Your task to perform on an android device: change notification settings in the gmail app Image 0: 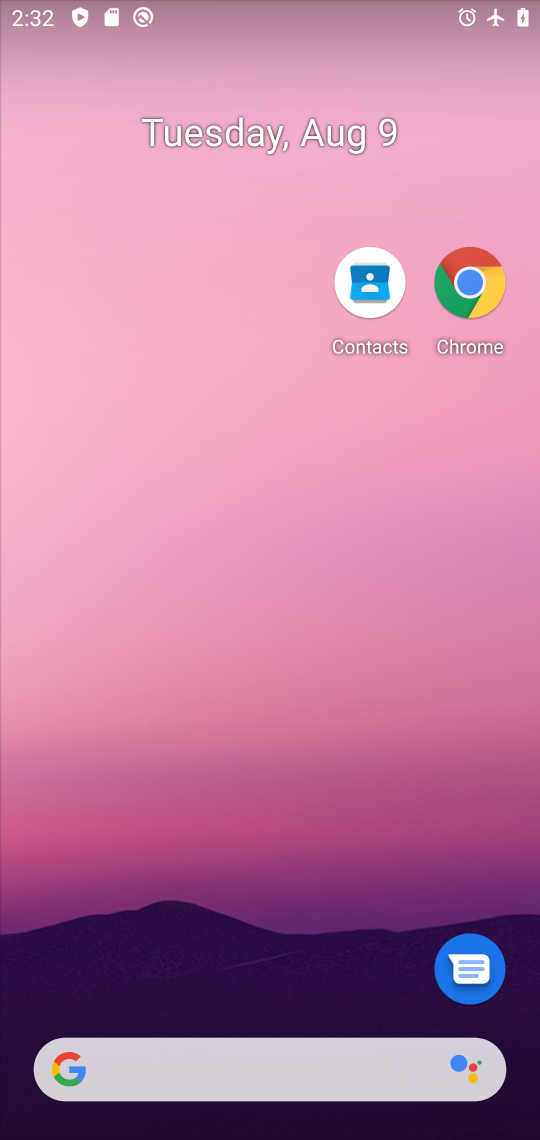
Step 0: drag from (365, 895) to (405, 66)
Your task to perform on an android device: change notification settings in the gmail app Image 1: 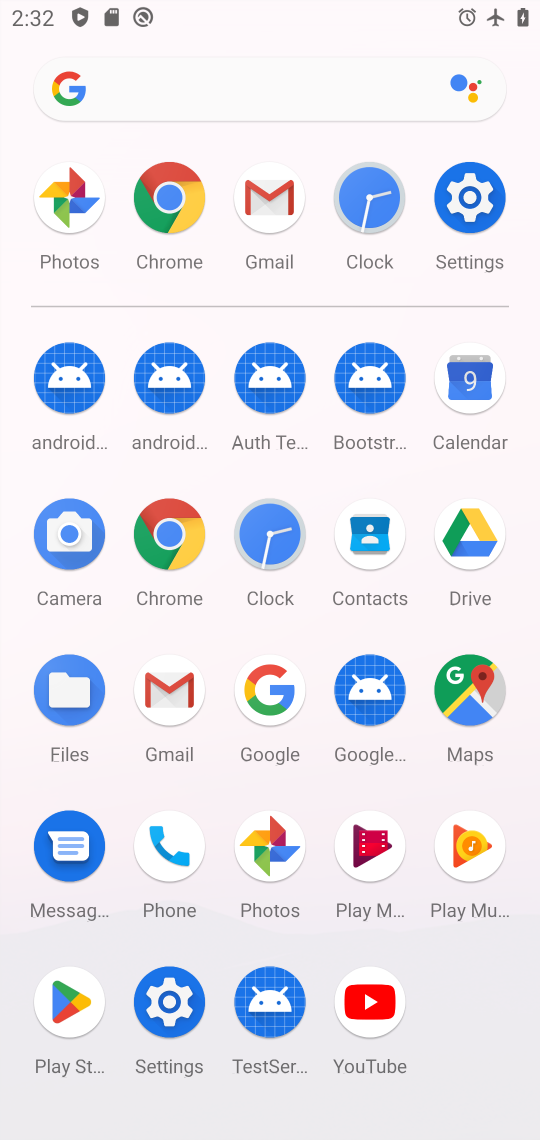
Step 1: click (178, 681)
Your task to perform on an android device: change notification settings in the gmail app Image 2: 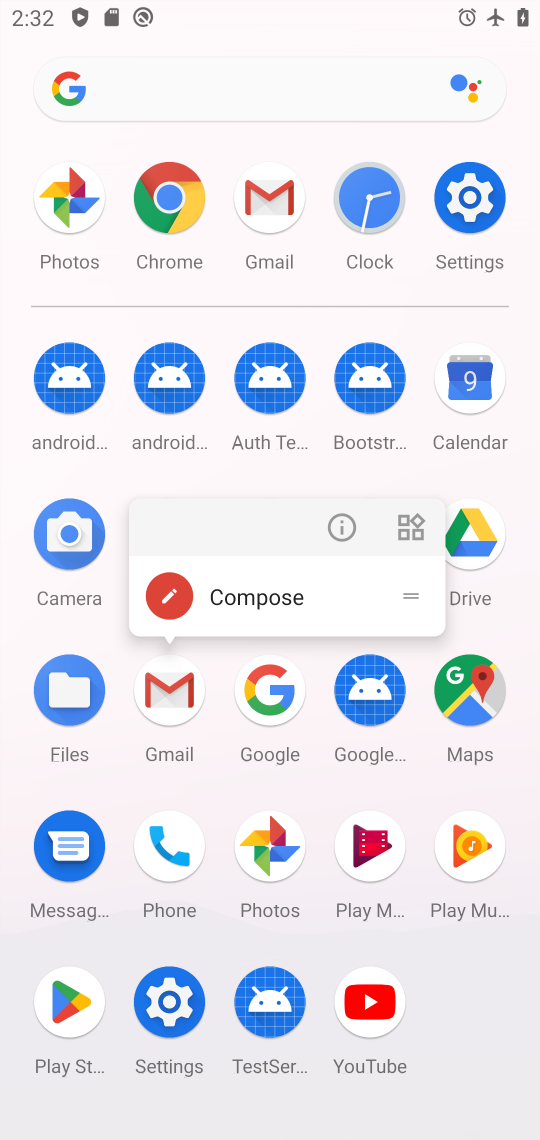
Step 2: click (352, 530)
Your task to perform on an android device: change notification settings in the gmail app Image 3: 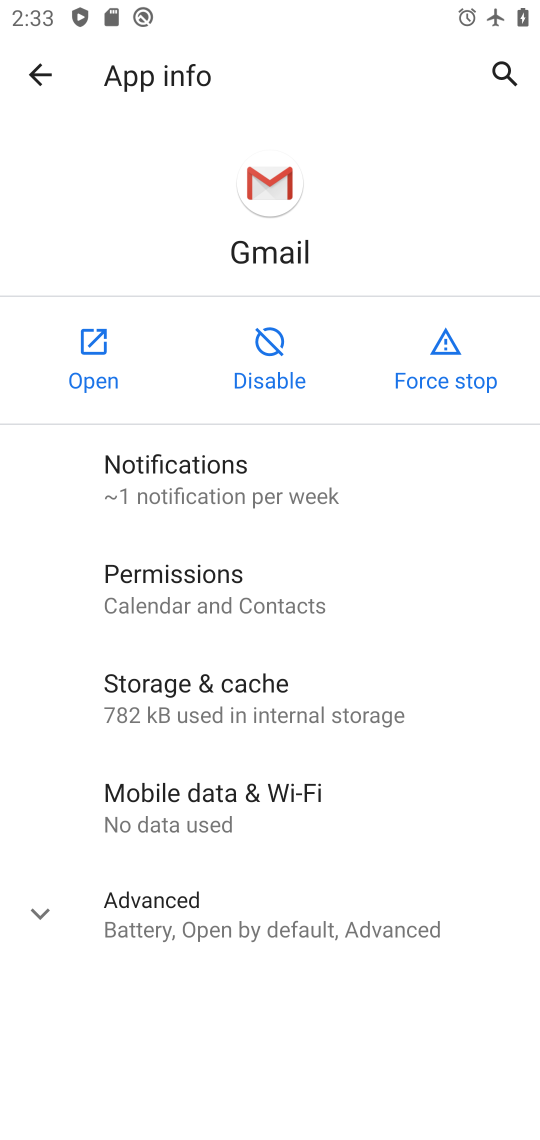
Step 3: click (102, 363)
Your task to perform on an android device: change notification settings in the gmail app Image 4: 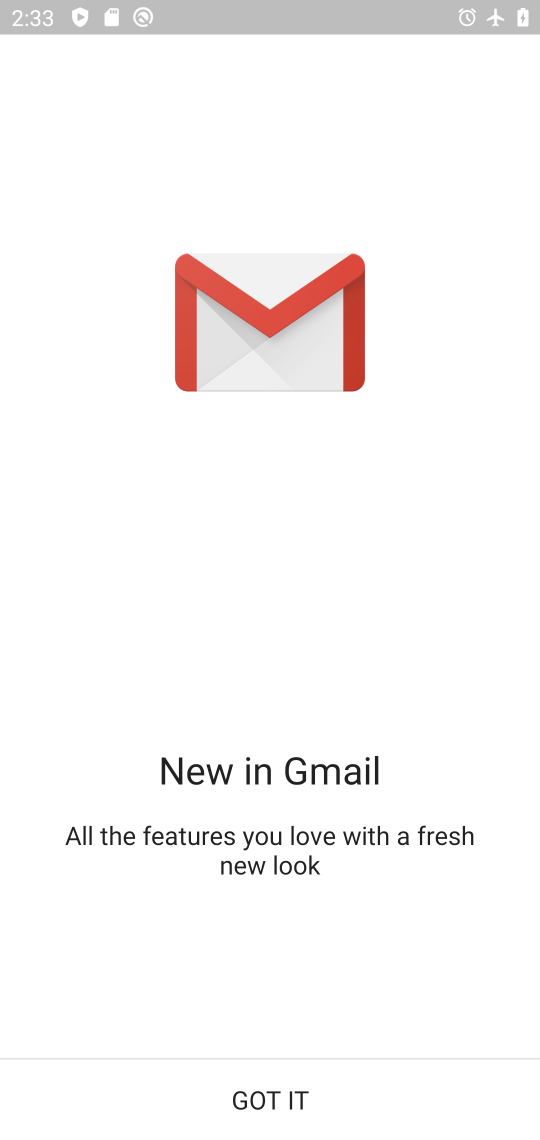
Step 4: click (290, 1106)
Your task to perform on an android device: change notification settings in the gmail app Image 5: 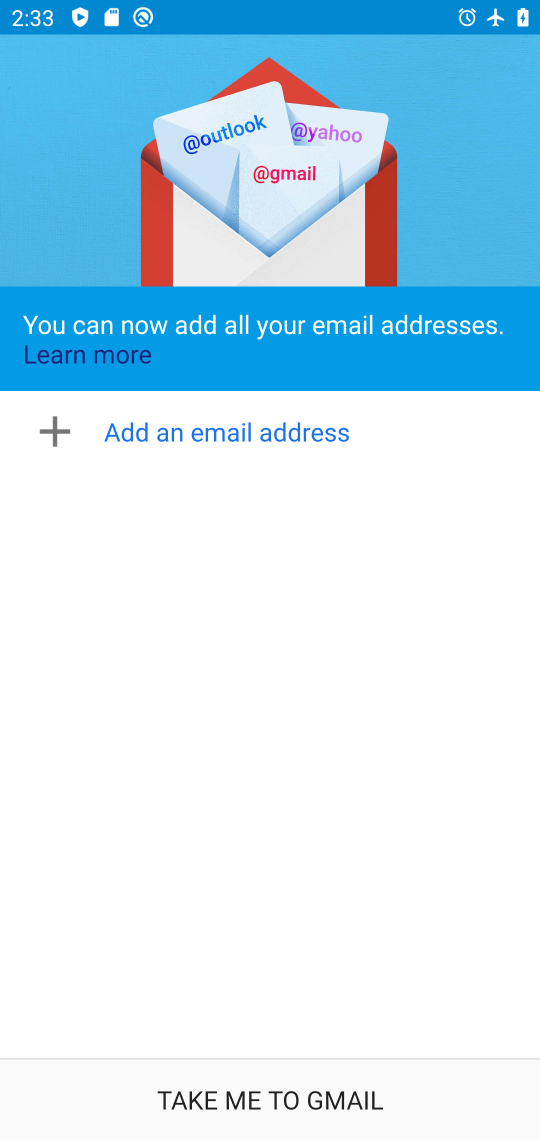
Step 5: task complete